Your task to perform on an android device: turn smart compose on in the gmail app Image 0: 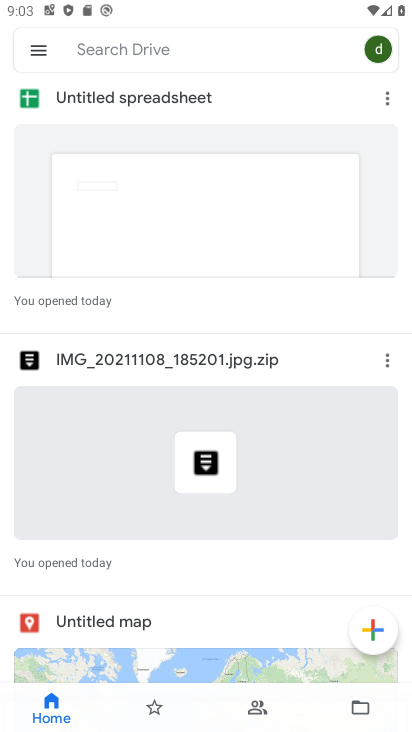
Step 0: press home button
Your task to perform on an android device: turn smart compose on in the gmail app Image 1: 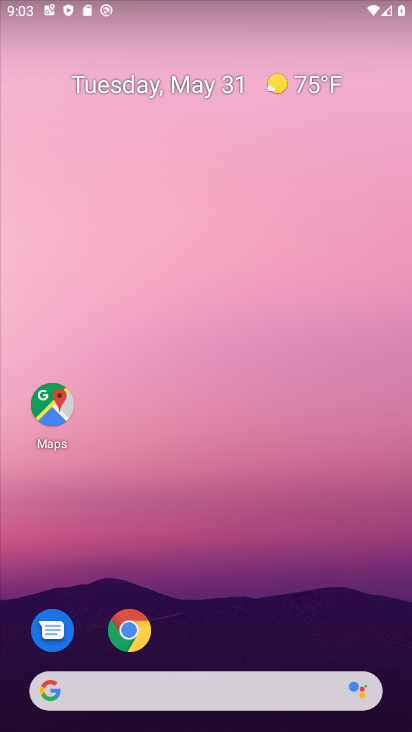
Step 1: drag from (261, 550) to (266, 53)
Your task to perform on an android device: turn smart compose on in the gmail app Image 2: 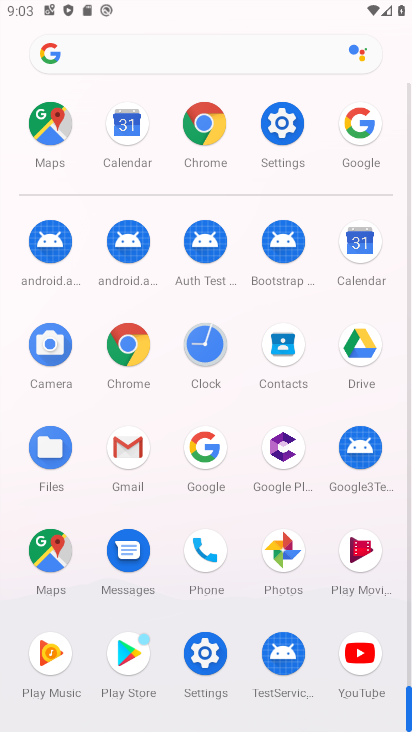
Step 2: click (124, 474)
Your task to perform on an android device: turn smart compose on in the gmail app Image 3: 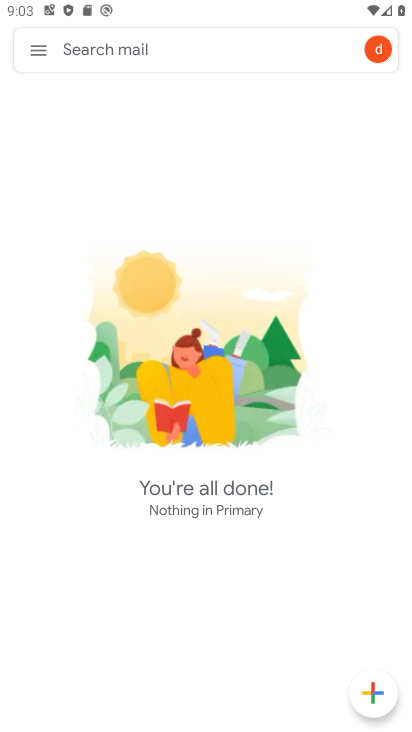
Step 3: click (38, 53)
Your task to perform on an android device: turn smart compose on in the gmail app Image 4: 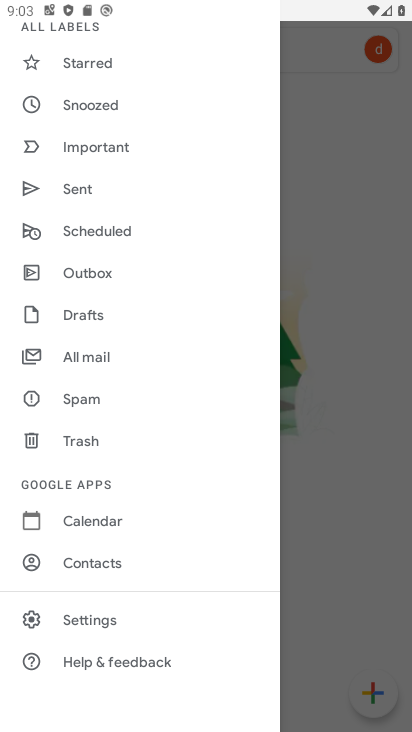
Step 4: click (96, 622)
Your task to perform on an android device: turn smart compose on in the gmail app Image 5: 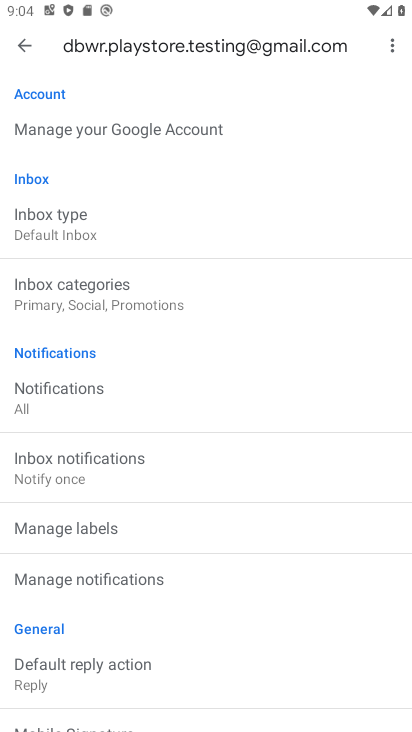
Step 5: drag from (126, 568) to (158, 154)
Your task to perform on an android device: turn smart compose on in the gmail app Image 6: 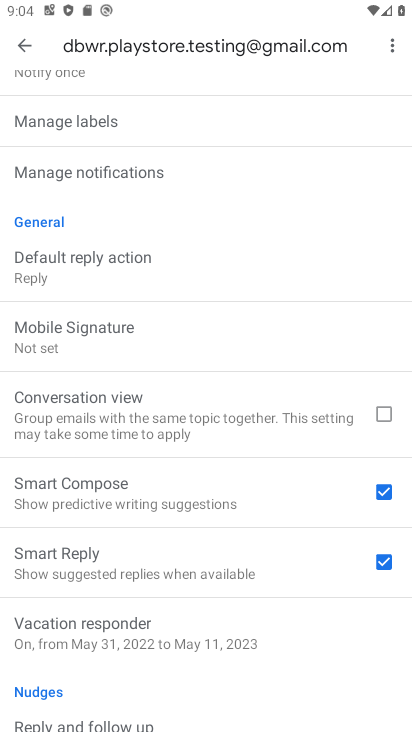
Step 6: drag from (148, 514) to (199, 155)
Your task to perform on an android device: turn smart compose on in the gmail app Image 7: 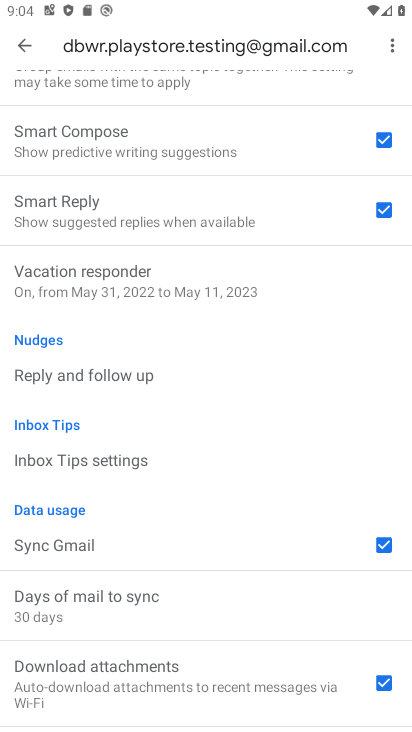
Step 7: click (160, 558)
Your task to perform on an android device: turn smart compose on in the gmail app Image 8: 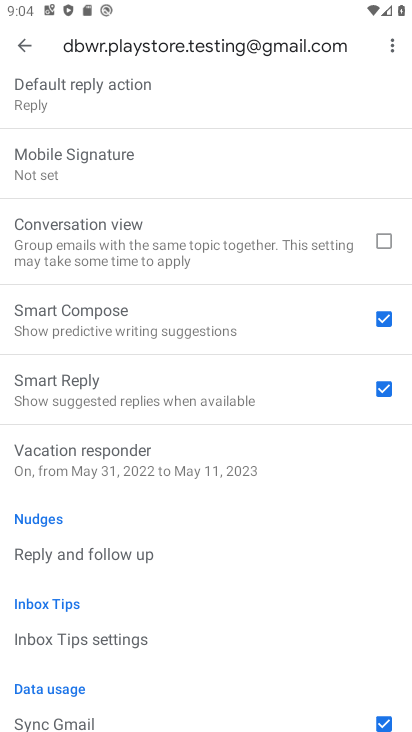
Step 8: task complete